Your task to perform on an android device: Open Google Maps and go to "Timeline" Image 0: 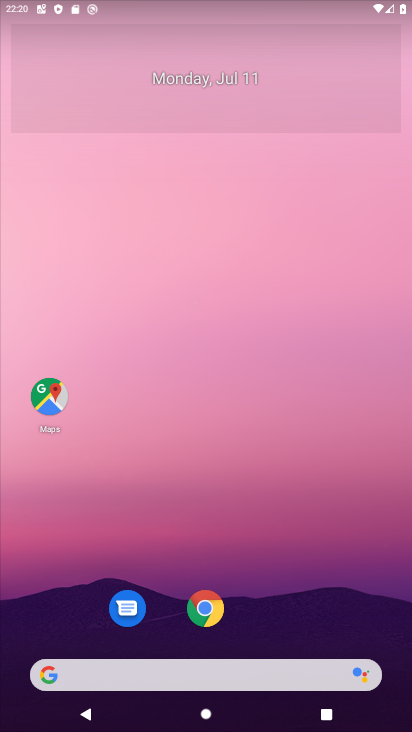
Step 0: click (51, 400)
Your task to perform on an android device: Open Google Maps and go to "Timeline" Image 1: 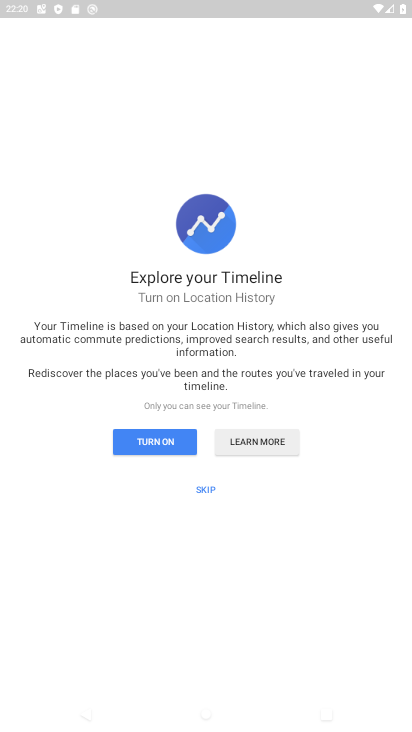
Step 1: press home button
Your task to perform on an android device: Open Google Maps and go to "Timeline" Image 2: 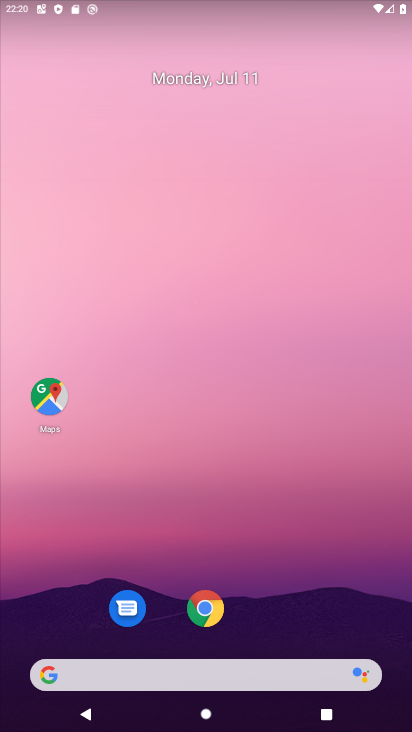
Step 2: click (42, 392)
Your task to perform on an android device: Open Google Maps and go to "Timeline" Image 3: 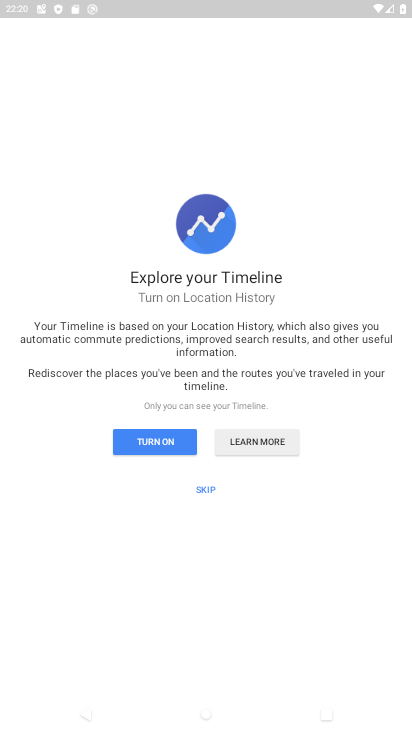
Step 3: click (193, 488)
Your task to perform on an android device: Open Google Maps and go to "Timeline" Image 4: 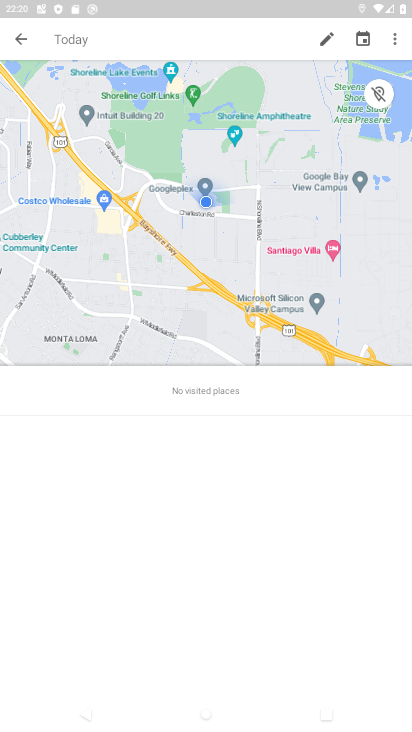
Step 4: click (15, 40)
Your task to perform on an android device: Open Google Maps and go to "Timeline" Image 5: 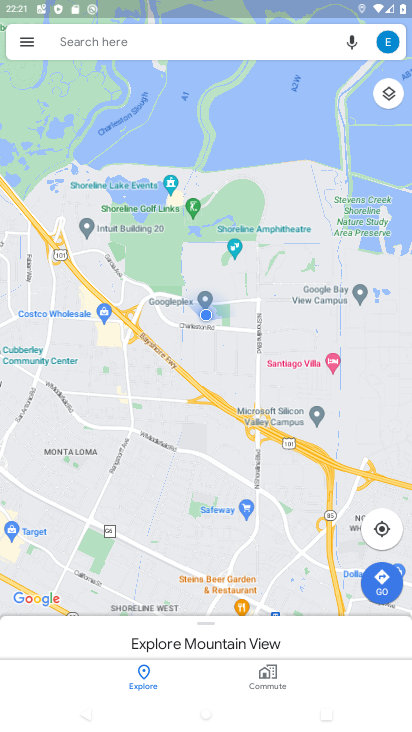
Step 5: click (26, 31)
Your task to perform on an android device: Open Google Maps and go to "Timeline" Image 6: 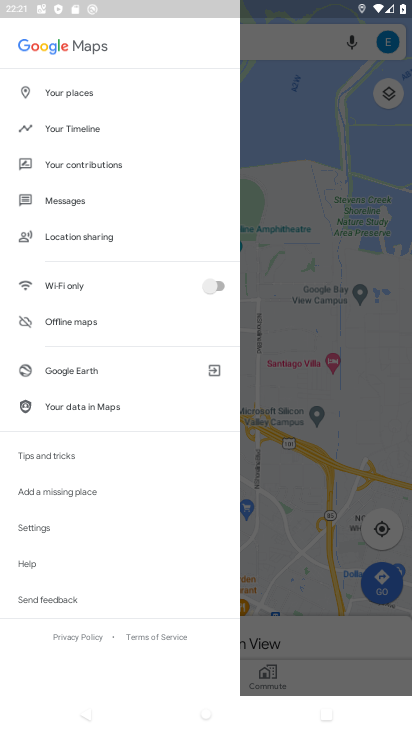
Step 6: click (62, 130)
Your task to perform on an android device: Open Google Maps and go to "Timeline" Image 7: 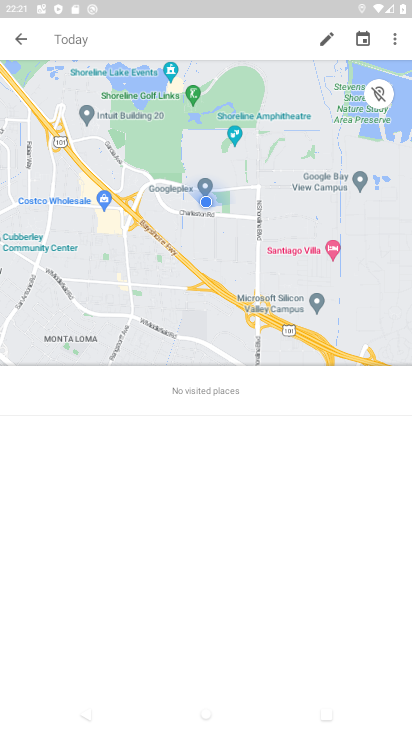
Step 7: task complete